Your task to perform on an android device: see sites visited before in the chrome app Image 0: 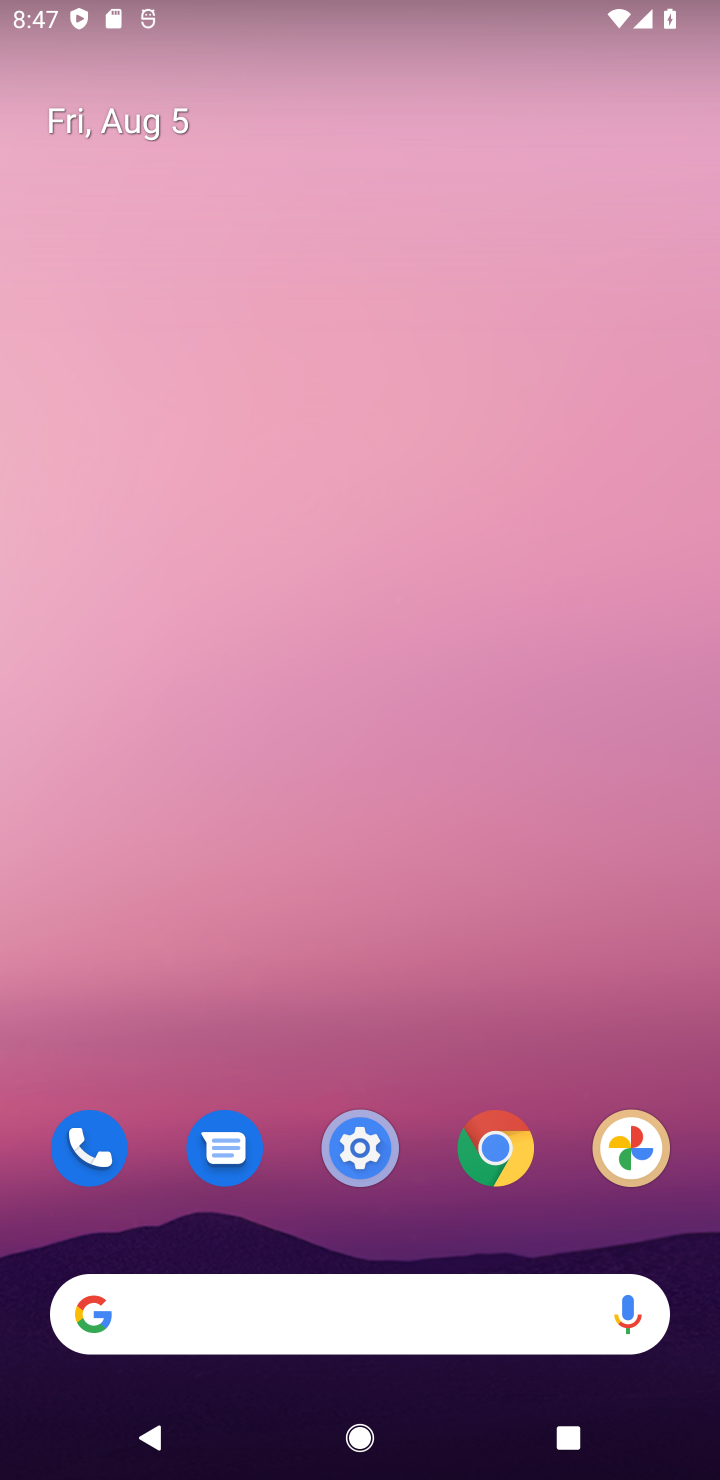
Step 0: click (523, 1146)
Your task to perform on an android device: see sites visited before in the chrome app Image 1: 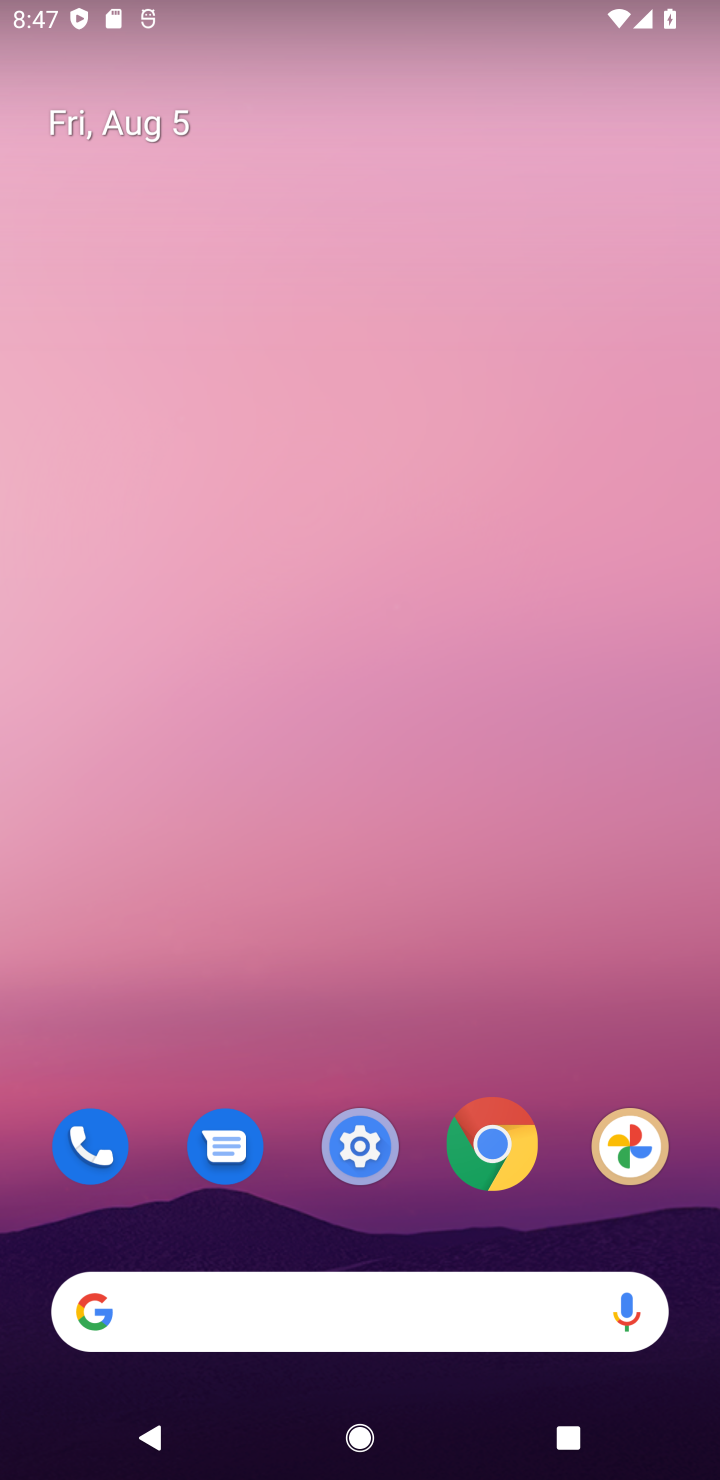
Step 1: task complete